Your task to perform on an android device: Go to eBay Image 0: 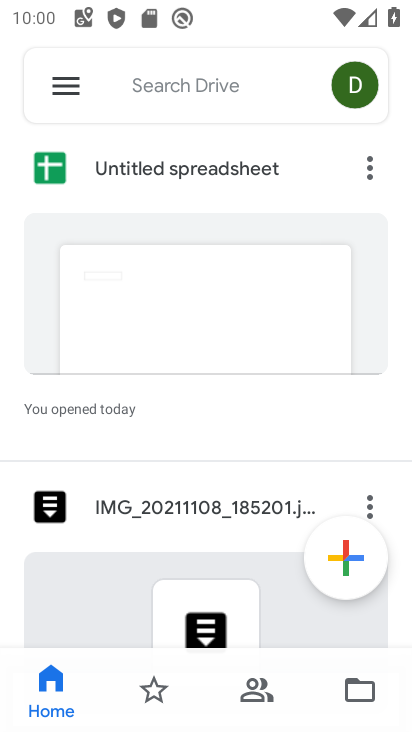
Step 0: press home button
Your task to perform on an android device: Go to eBay Image 1: 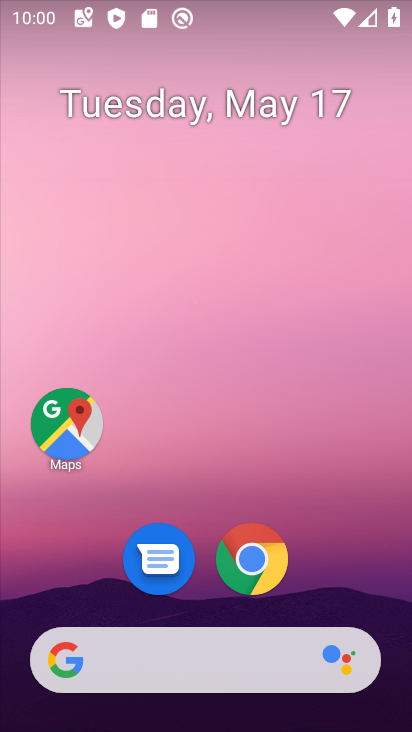
Step 1: click (231, 663)
Your task to perform on an android device: Go to eBay Image 2: 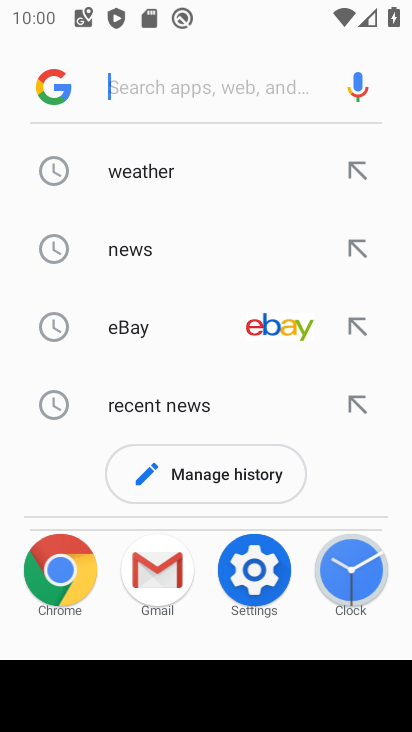
Step 2: click (278, 306)
Your task to perform on an android device: Go to eBay Image 3: 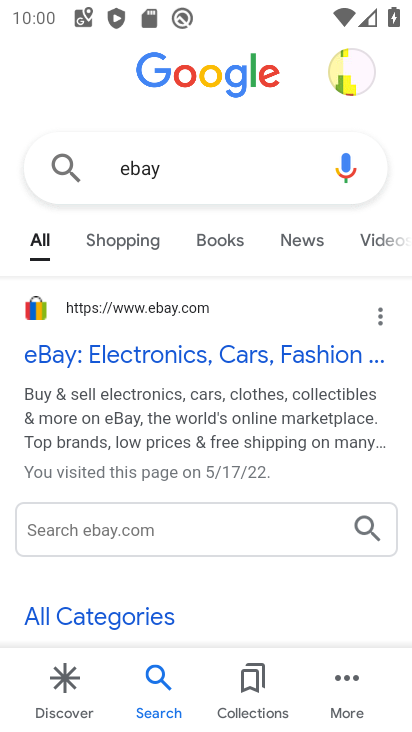
Step 3: click (146, 314)
Your task to perform on an android device: Go to eBay Image 4: 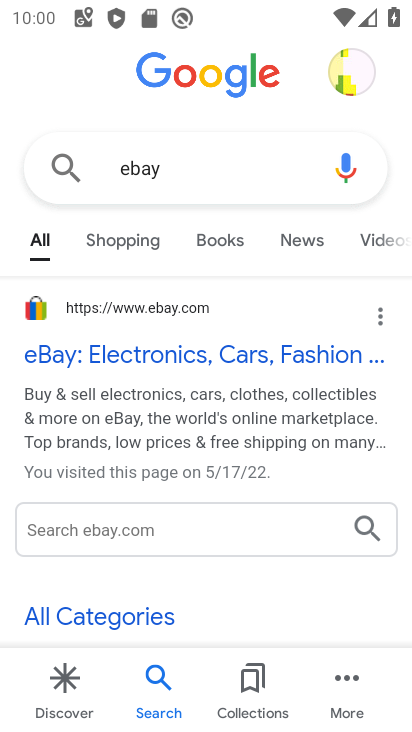
Step 4: click (157, 302)
Your task to perform on an android device: Go to eBay Image 5: 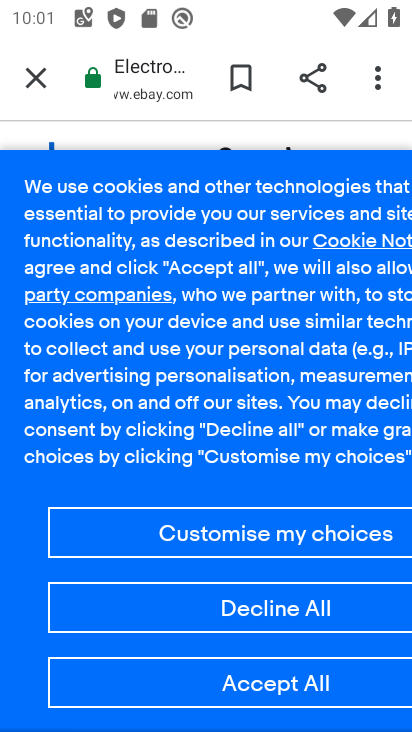
Step 5: task complete